Your task to perform on an android device: Search for seafood restaurants on Google Maps Image 0: 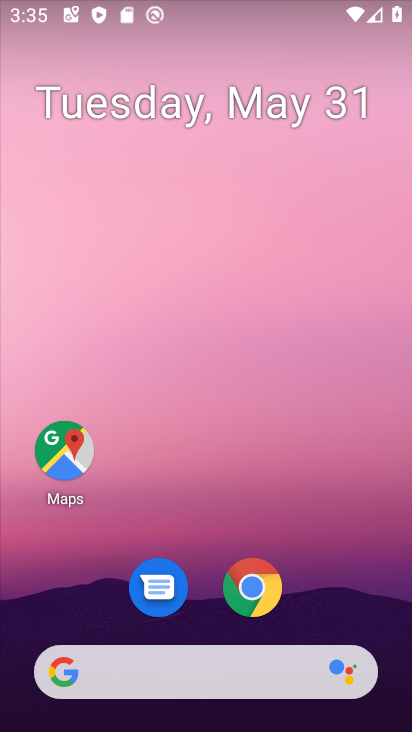
Step 0: click (57, 449)
Your task to perform on an android device: Search for seafood restaurants on Google Maps Image 1: 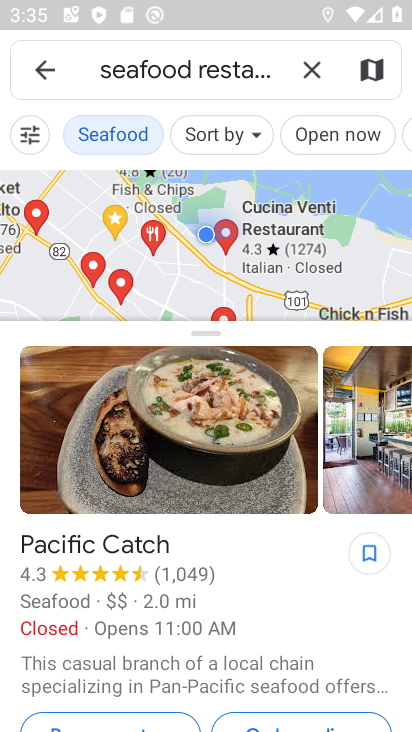
Step 1: task complete